Your task to perform on an android device: toggle show notifications on the lock screen Image 0: 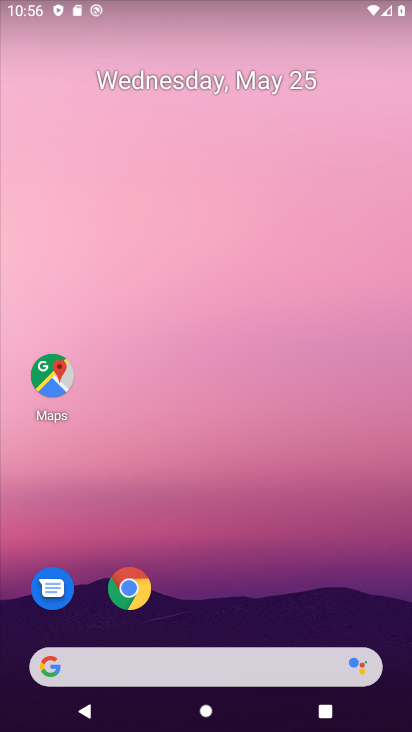
Step 0: drag from (239, 622) to (179, 120)
Your task to perform on an android device: toggle show notifications on the lock screen Image 1: 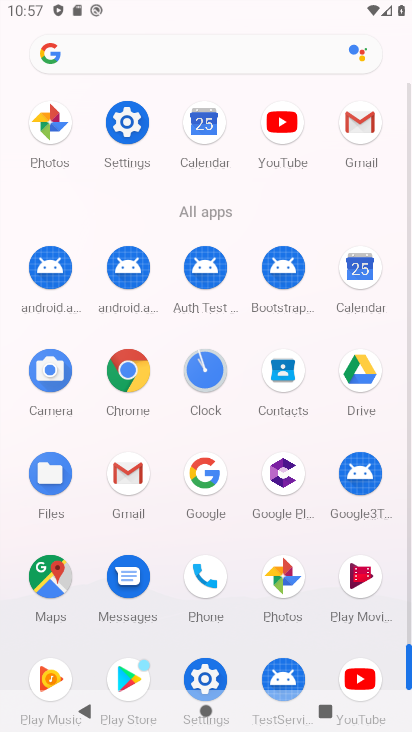
Step 1: click (129, 121)
Your task to perform on an android device: toggle show notifications on the lock screen Image 2: 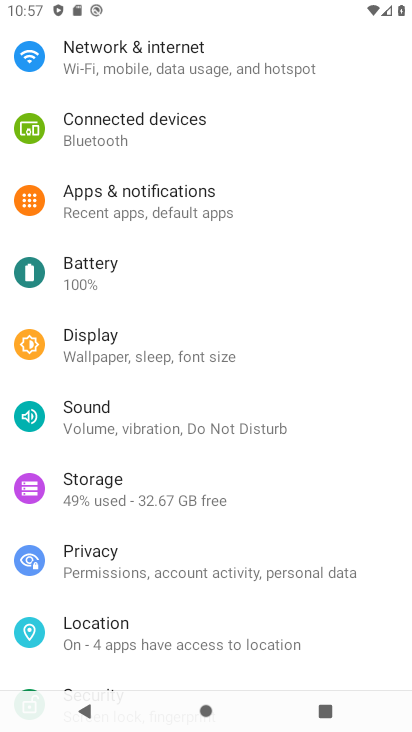
Step 2: click (133, 208)
Your task to perform on an android device: toggle show notifications on the lock screen Image 3: 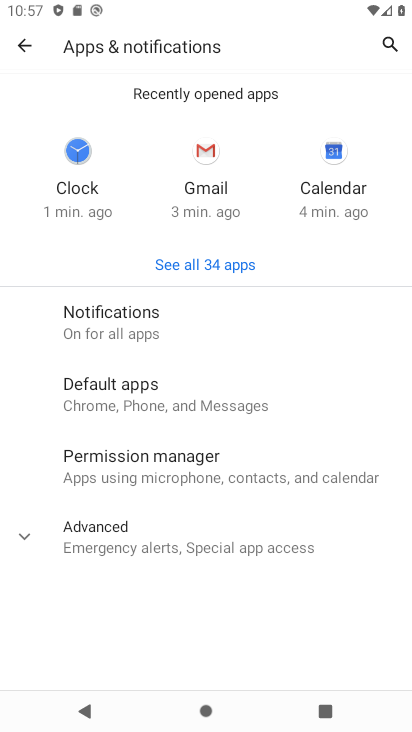
Step 3: click (126, 322)
Your task to perform on an android device: toggle show notifications on the lock screen Image 4: 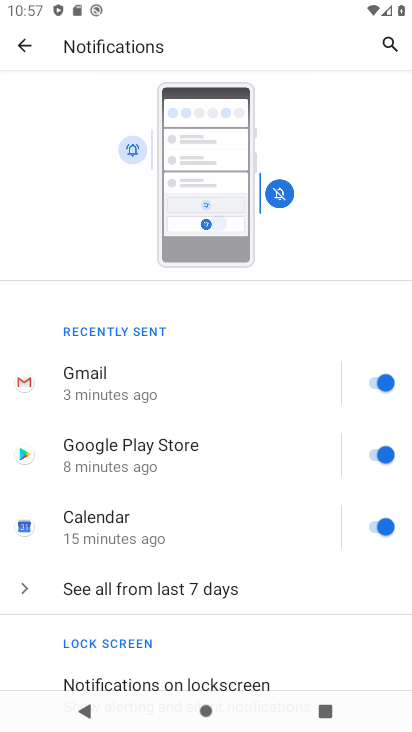
Step 4: drag from (197, 658) to (235, 539)
Your task to perform on an android device: toggle show notifications on the lock screen Image 5: 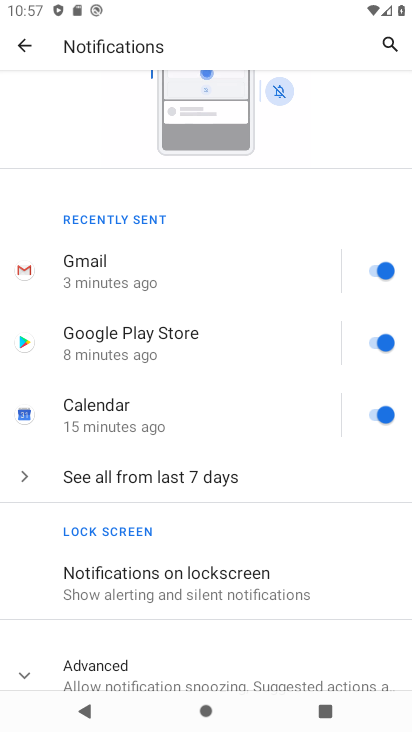
Step 5: click (188, 600)
Your task to perform on an android device: toggle show notifications on the lock screen Image 6: 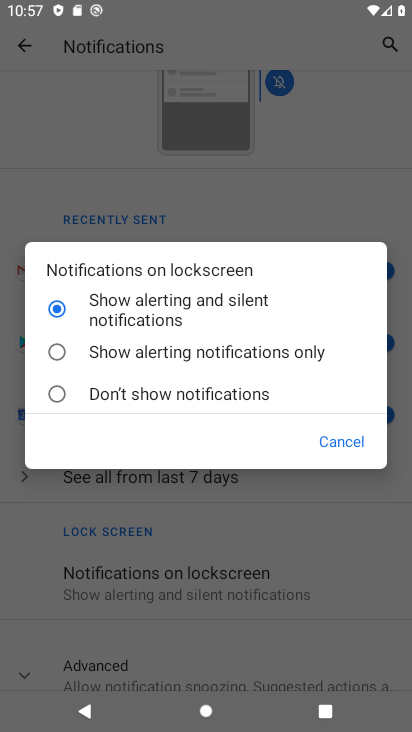
Step 6: click (64, 389)
Your task to perform on an android device: toggle show notifications on the lock screen Image 7: 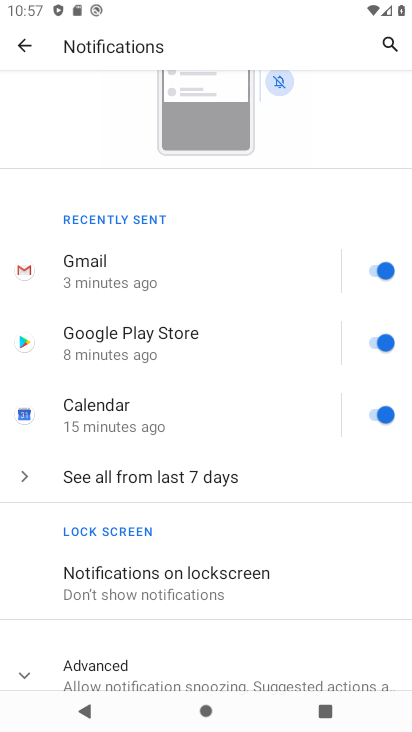
Step 7: task complete